Your task to perform on an android device: turn on priority inbox in the gmail app Image 0: 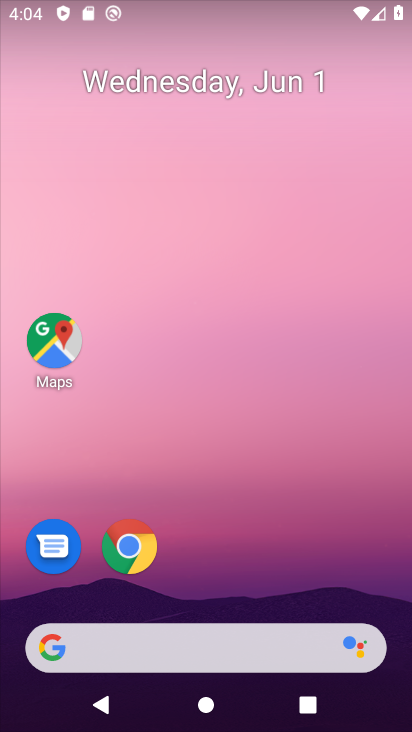
Step 0: drag from (257, 532) to (146, 160)
Your task to perform on an android device: turn on priority inbox in the gmail app Image 1: 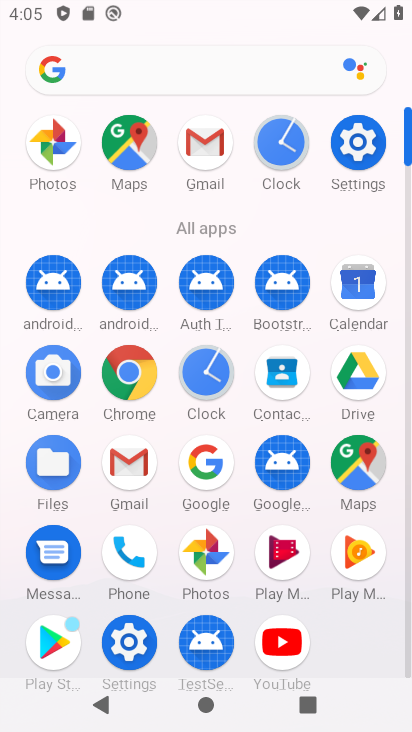
Step 1: click (206, 149)
Your task to perform on an android device: turn on priority inbox in the gmail app Image 2: 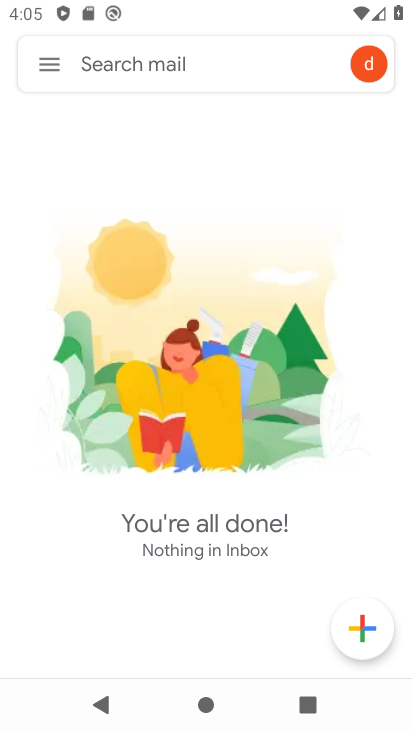
Step 2: click (50, 64)
Your task to perform on an android device: turn on priority inbox in the gmail app Image 3: 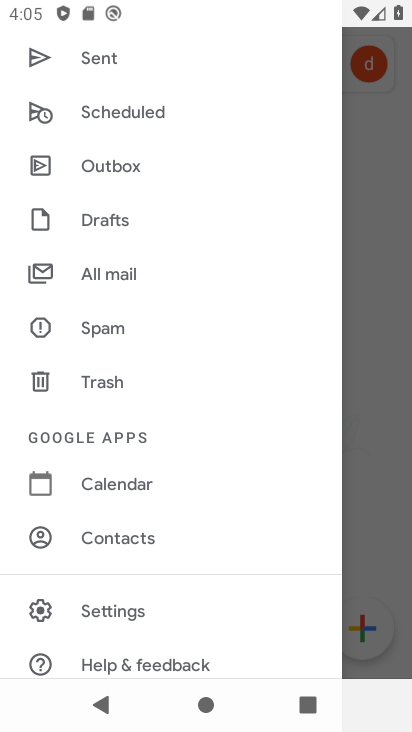
Step 3: click (117, 602)
Your task to perform on an android device: turn on priority inbox in the gmail app Image 4: 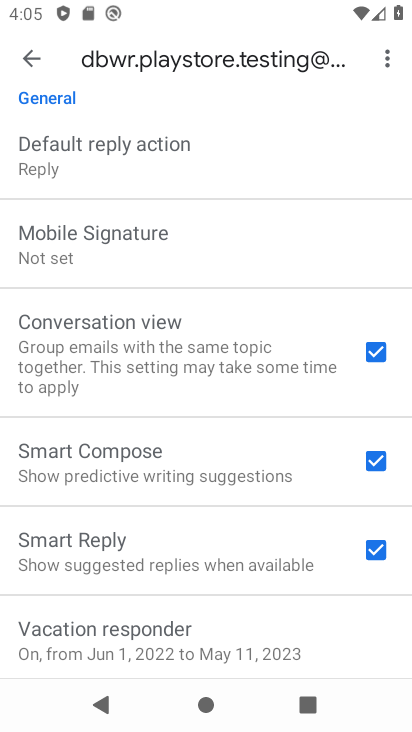
Step 4: drag from (98, 376) to (161, 599)
Your task to perform on an android device: turn on priority inbox in the gmail app Image 5: 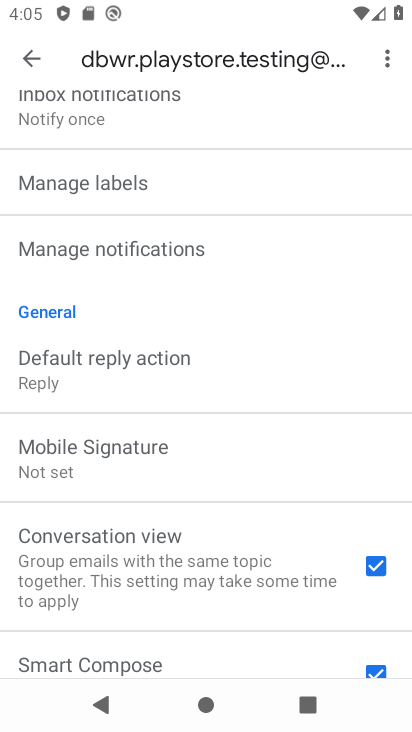
Step 5: drag from (173, 168) to (188, 369)
Your task to perform on an android device: turn on priority inbox in the gmail app Image 6: 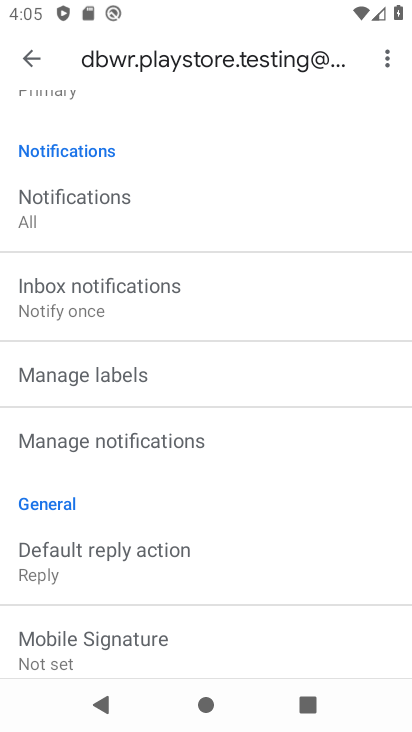
Step 6: drag from (207, 171) to (261, 523)
Your task to perform on an android device: turn on priority inbox in the gmail app Image 7: 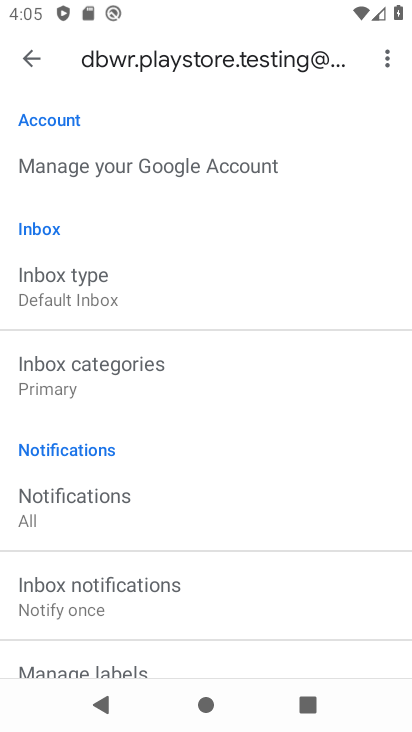
Step 7: click (72, 276)
Your task to perform on an android device: turn on priority inbox in the gmail app Image 8: 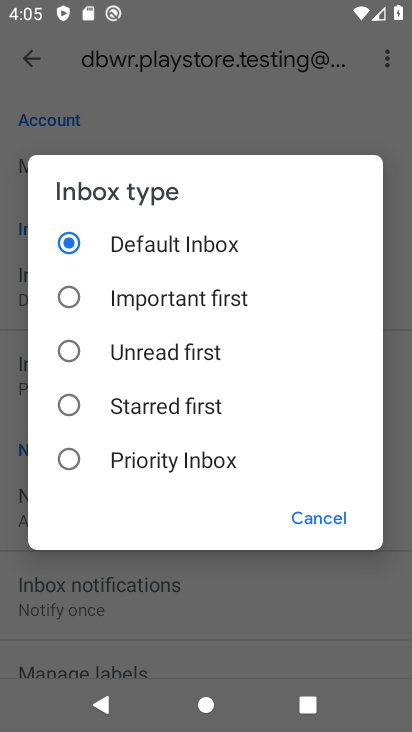
Step 8: click (74, 456)
Your task to perform on an android device: turn on priority inbox in the gmail app Image 9: 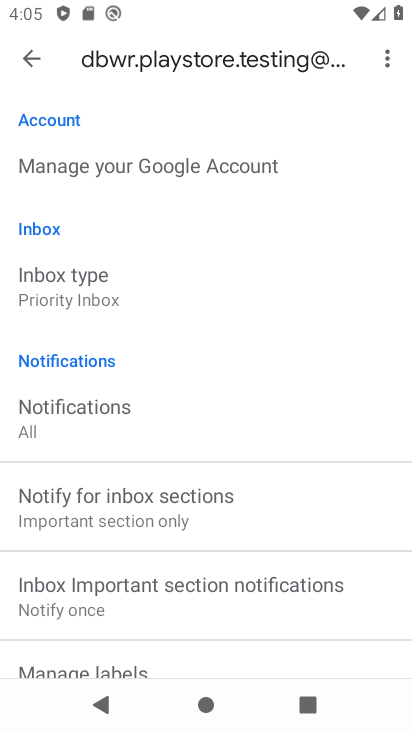
Step 9: task complete